Your task to perform on an android device: Go to battery settings Image 0: 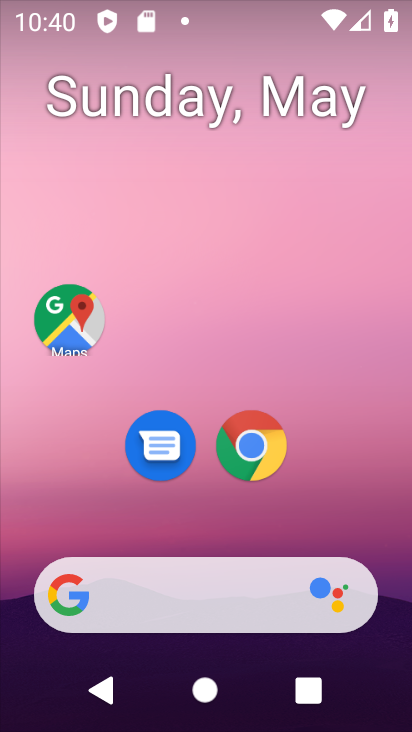
Step 0: drag from (200, 455) to (209, 134)
Your task to perform on an android device: Go to battery settings Image 1: 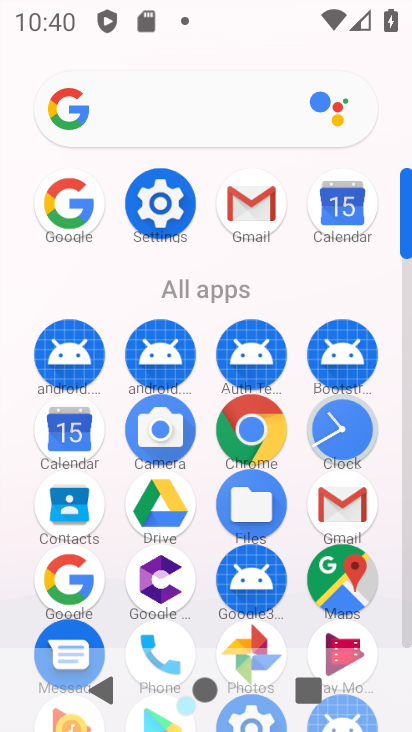
Step 1: click (170, 201)
Your task to perform on an android device: Go to battery settings Image 2: 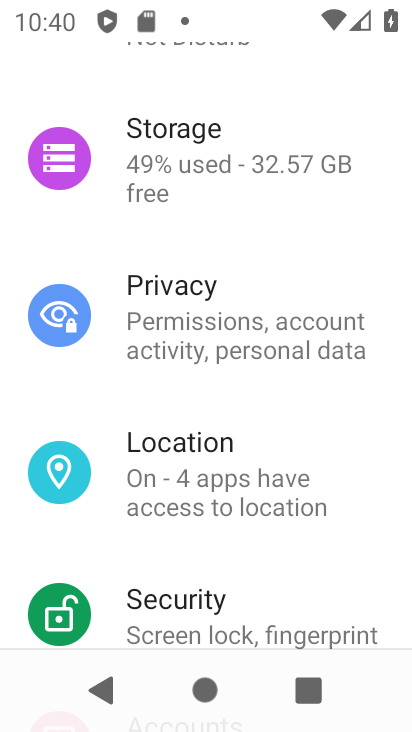
Step 2: drag from (267, 116) to (283, 539)
Your task to perform on an android device: Go to battery settings Image 3: 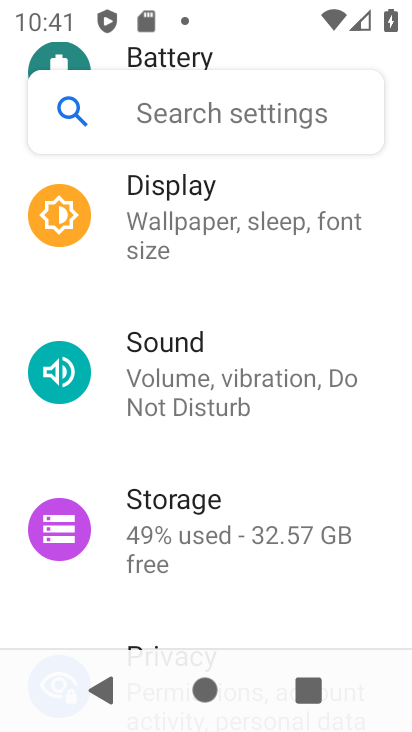
Step 3: drag from (255, 213) to (262, 542)
Your task to perform on an android device: Go to battery settings Image 4: 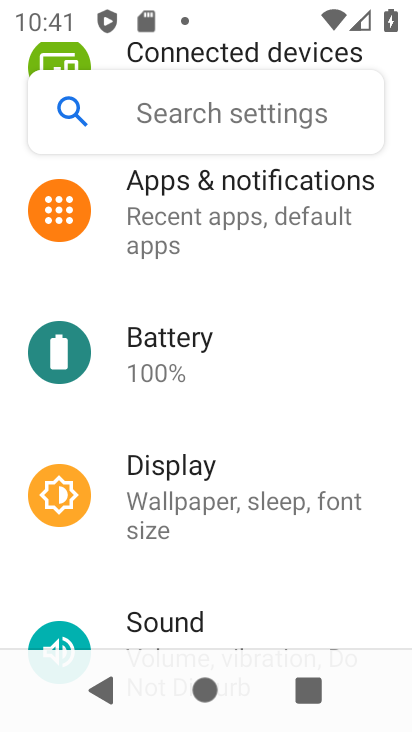
Step 4: click (195, 343)
Your task to perform on an android device: Go to battery settings Image 5: 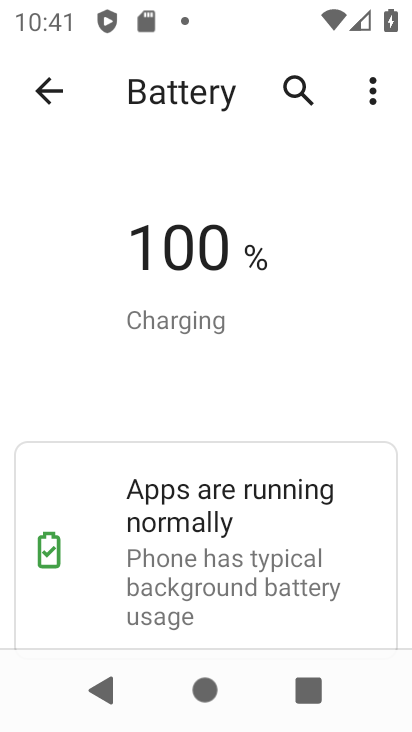
Step 5: task complete